Your task to perform on an android device: delete browsing data in the chrome app Image 0: 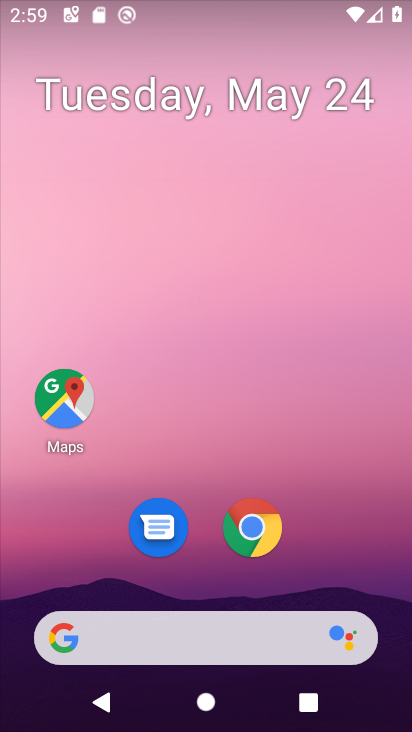
Step 0: click (256, 532)
Your task to perform on an android device: delete browsing data in the chrome app Image 1: 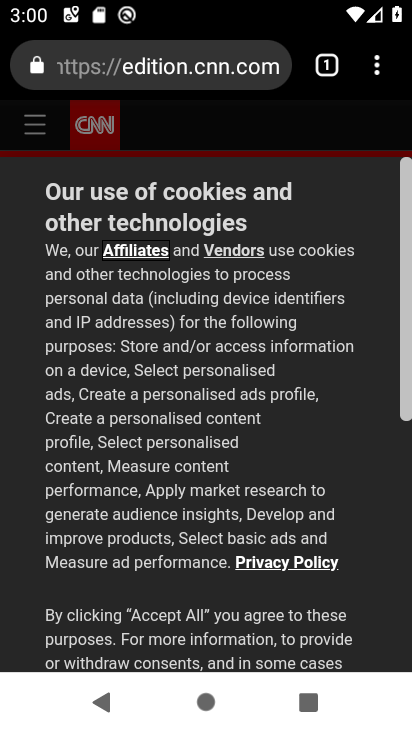
Step 1: click (382, 64)
Your task to perform on an android device: delete browsing data in the chrome app Image 2: 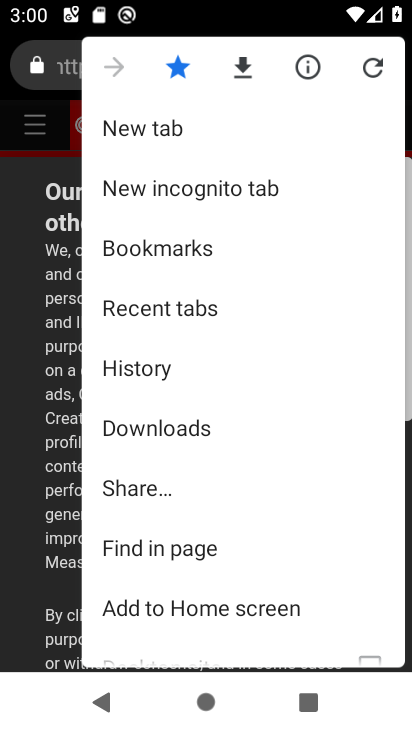
Step 2: drag from (230, 469) to (212, 149)
Your task to perform on an android device: delete browsing data in the chrome app Image 3: 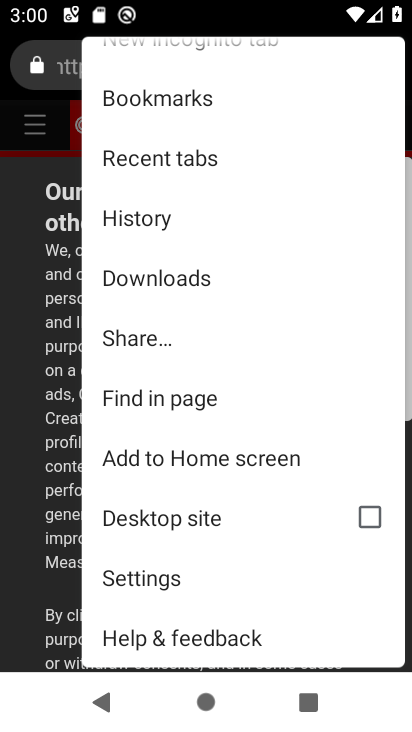
Step 3: click (128, 574)
Your task to perform on an android device: delete browsing data in the chrome app Image 4: 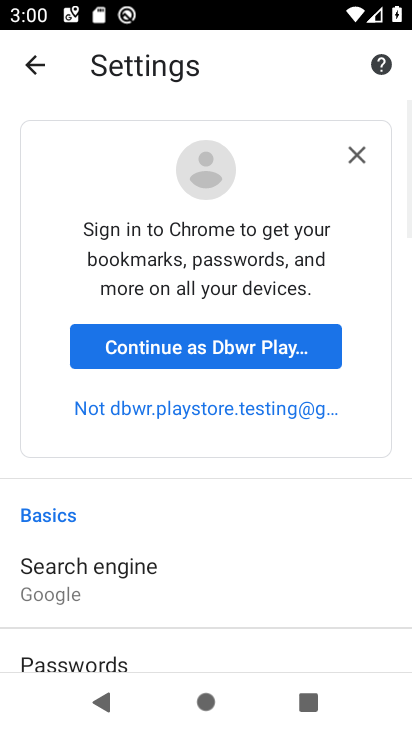
Step 4: drag from (209, 569) to (208, 153)
Your task to perform on an android device: delete browsing data in the chrome app Image 5: 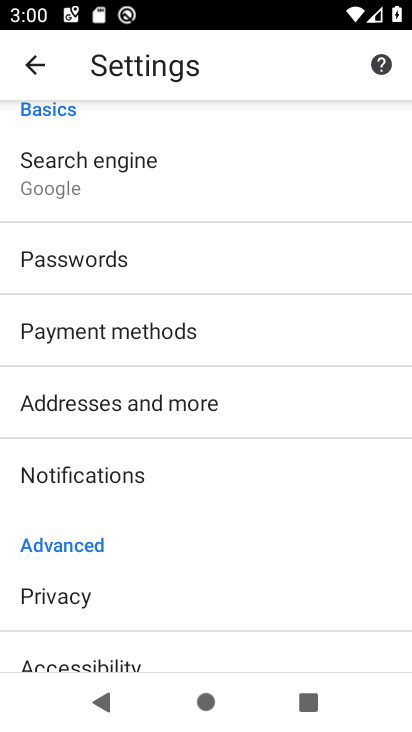
Step 5: drag from (183, 582) to (177, 261)
Your task to perform on an android device: delete browsing data in the chrome app Image 6: 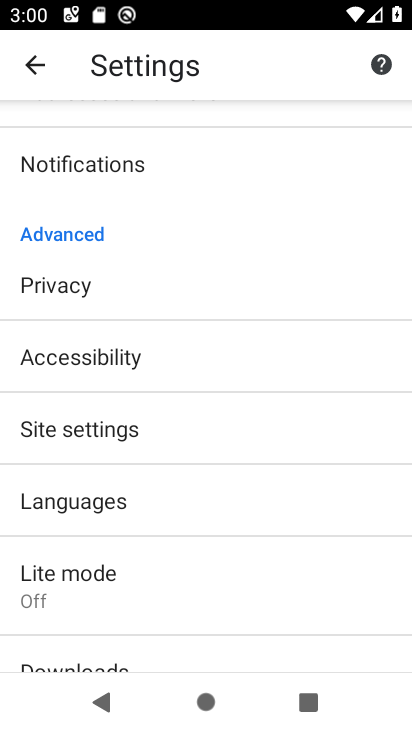
Step 6: click (62, 291)
Your task to perform on an android device: delete browsing data in the chrome app Image 7: 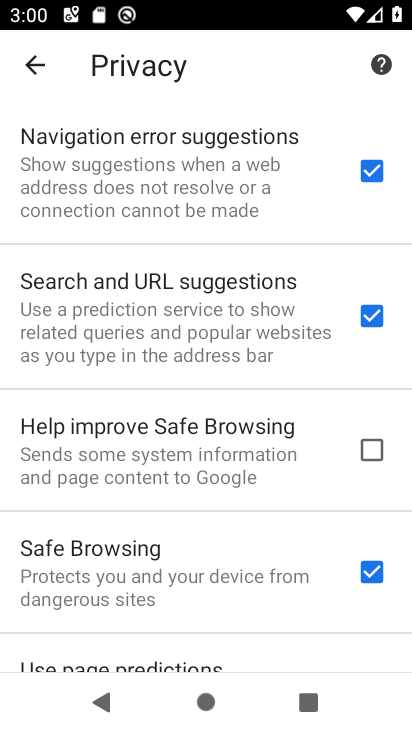
Step 7: drag from (160, 551) to (151, 195)
Your task to perform on an android device: delete browsing data in the chrome app Image 8: 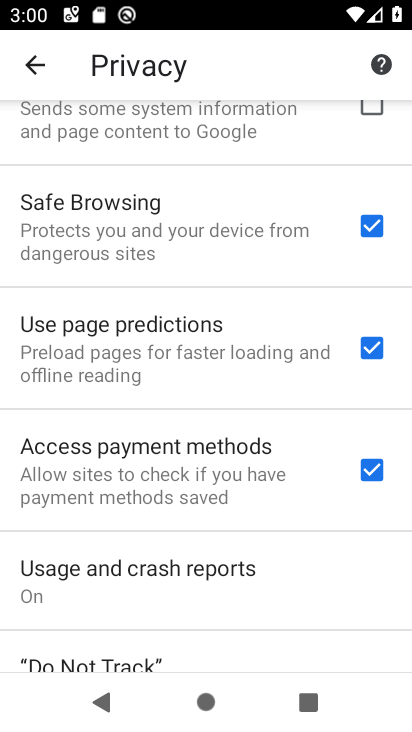
Step 8: drag from (119, 515) to (121, 283)
Your task to perform on an android device: delete browsing data in the chrome app Image 9: 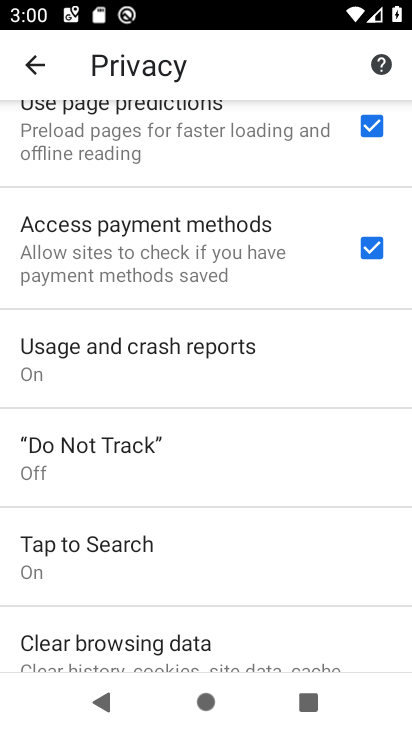
Step 9: drag from (100, 548) to (82, 225)
Your task to perform on an android device: delete browsing data in the chrome app Image 10: 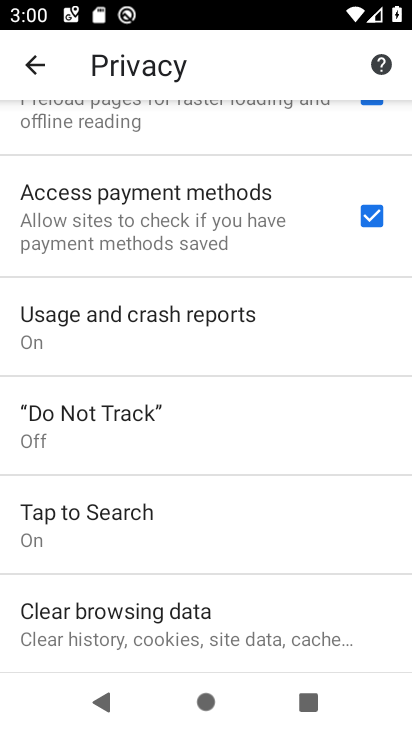
Step 10: click (124, 618)
Your task to perform on an android device: delete browsing data in the chrome app Image 11: 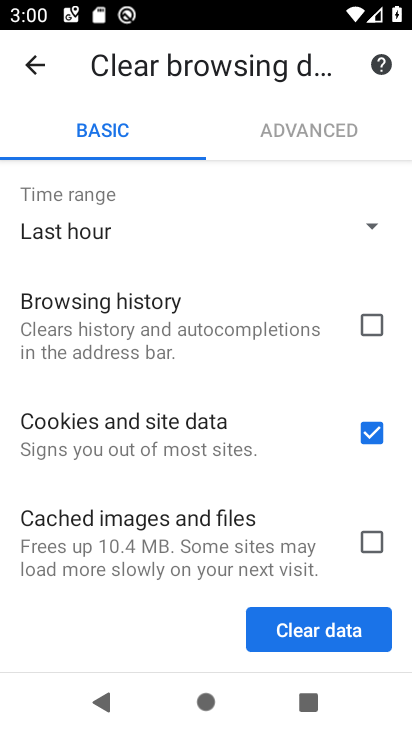
Step 11: click (363, 434)
Your task to perform on an android device: delete browsing data in the chrome app Image 12: 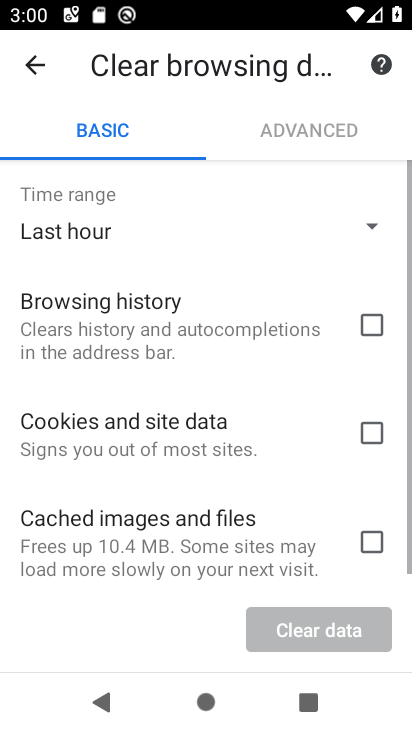
Step 12: click (361, 326)
Your task to perform on an android device: delete browsing data in the chrome app Image 13: 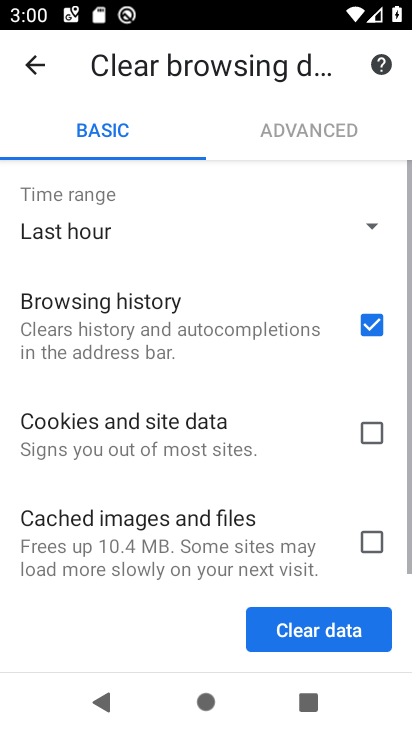
Step 13: drag from (299, 512) to (295, 389)
Your task to perform on an android device: delete browsing data in the chrome app Image 14: 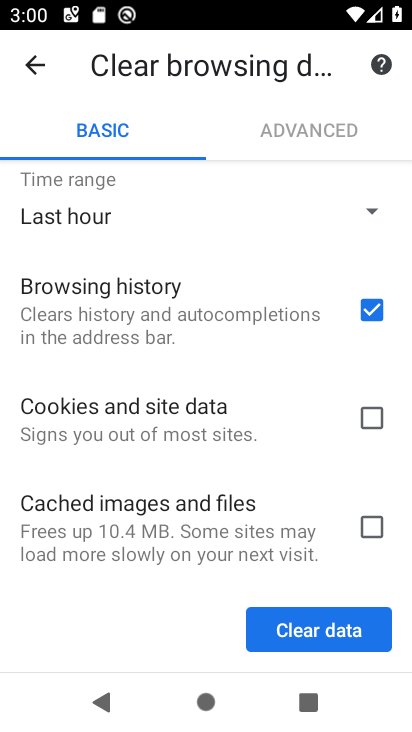
Step 14: click (323, 631)
Your task to perform on an android device: delete browsing data in the chrome app Image 15: 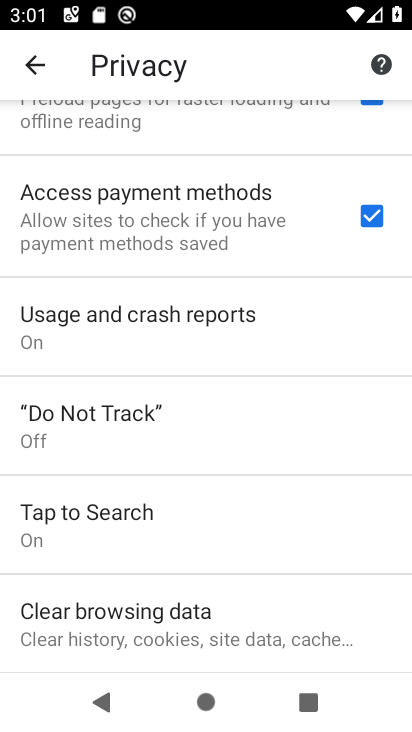
Step 15: task complete